Your task to perform on an android device: Open settings Image 0: 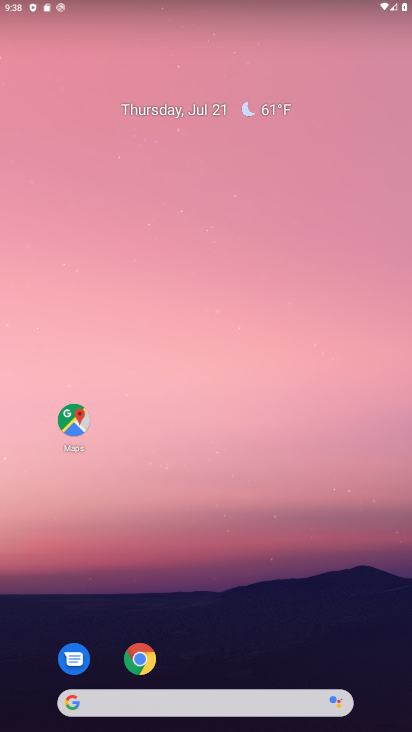
Step 0: drag from (64, 588) to (212, 134)
Your task to perform on an android device: Open settings Image 1: 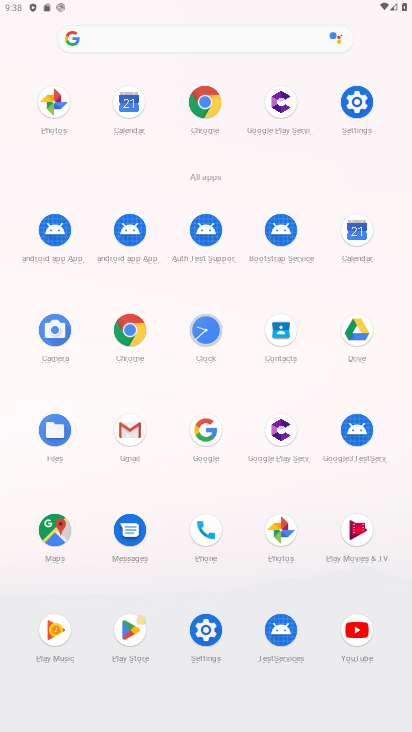
Step 1: click (204, 636)
Your task to perform on an android device: Open settings Image 2: 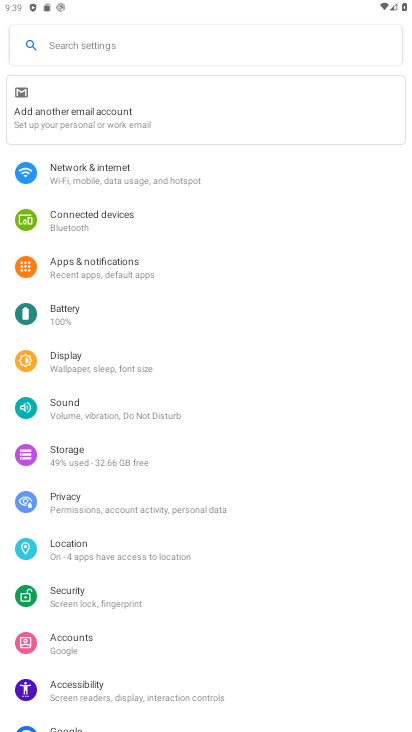
Step 2: task complete